Your task to perform on an android device: What's the weather going to be tomorrow? Image 0: 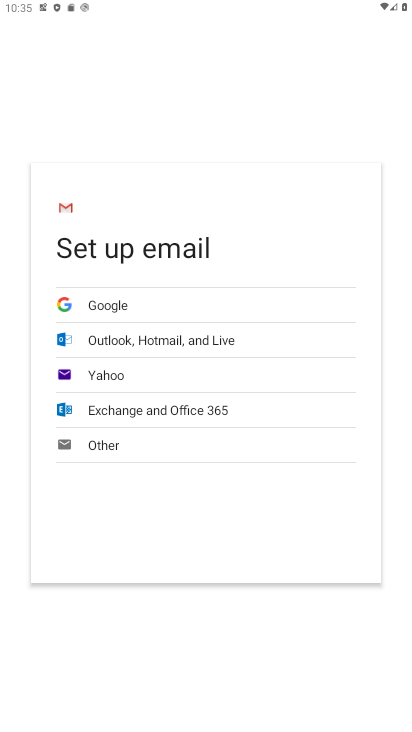
Step 0: press home button
Your task to perform on an android device: What's the weather going to be tomorrow? Image 1: 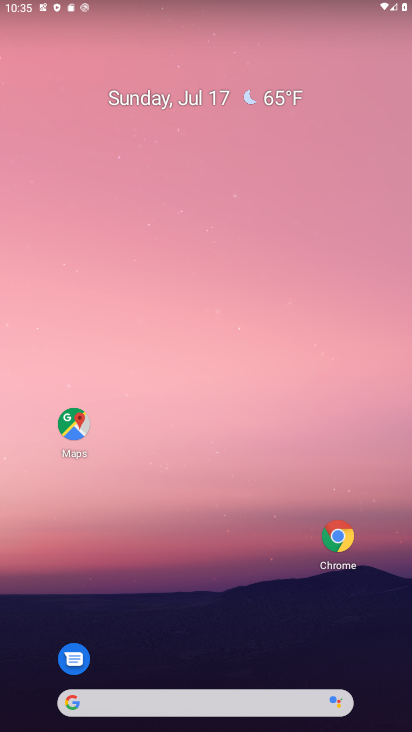
Step 1: click (260, 94)
Your task to perform on an android device: What's the weather going to be tomorrow? Image 2: 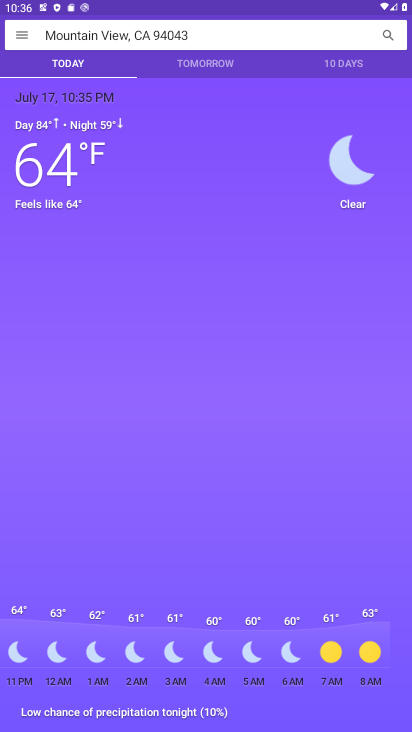
Step 2: click (189, 65)
Your task to perform on an android device: What's the weather going to be tomorrow? Image 3: 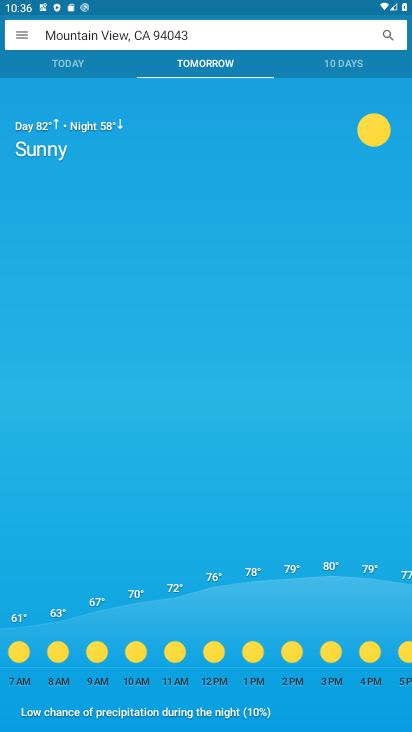
Step 3: task complete